Your task to perform on an android device: Do I have any events tomorrow? Image 0: 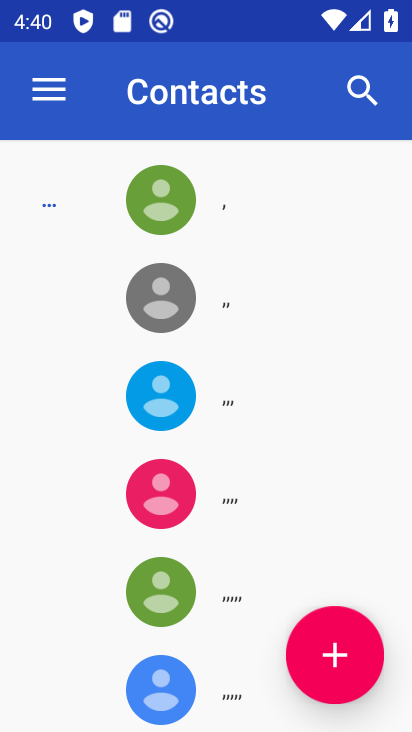
Step 0: press home button
Your task to perform on an android device: Do I have any events tomorrow? Image 1: 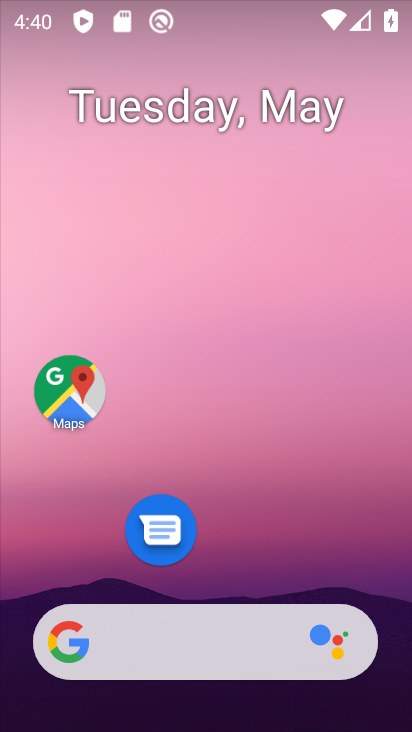
Step 1: drag from (269, 607) to (211, 57)
Your task to perform on an android device: Do I have any events tomorrow? Image 2: 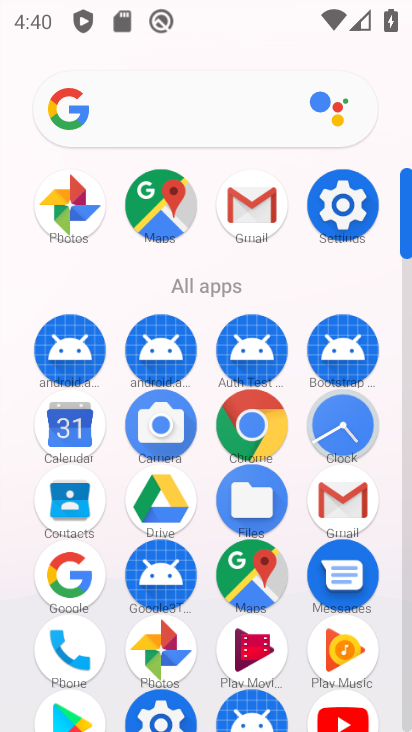
Step 2: click (63, 441)
Your task to perform on an android device: Do I have any events tomorrow? Image 3: 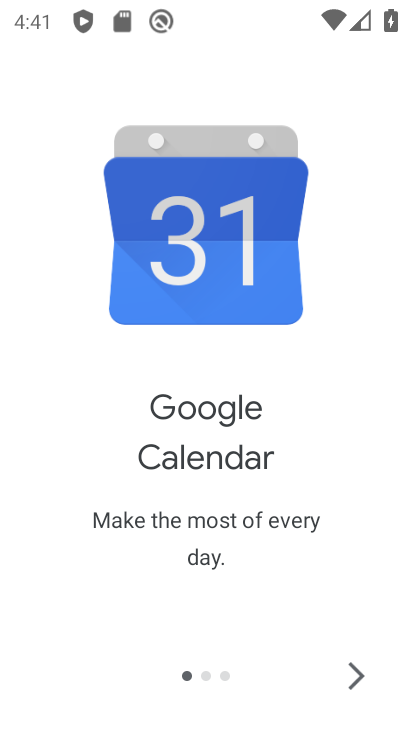
Step 3: click (374, 679)
Your task to perform on an android device: Do I have any events tomorrow? Image 4: 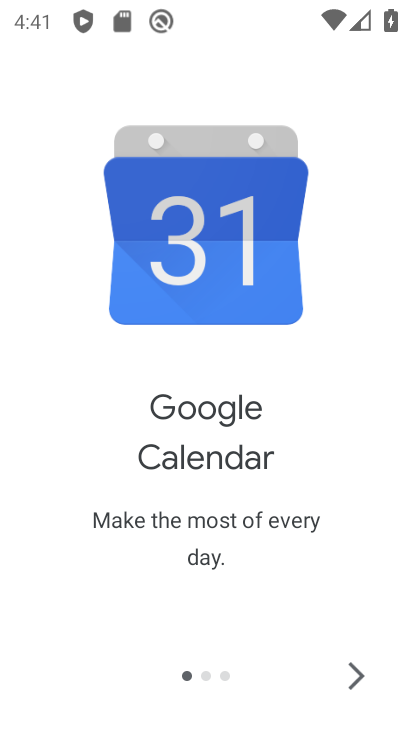
Step 4: click (374, 679)
Your task to perform on an android device: Do I have any events tomorrow? Image 5: 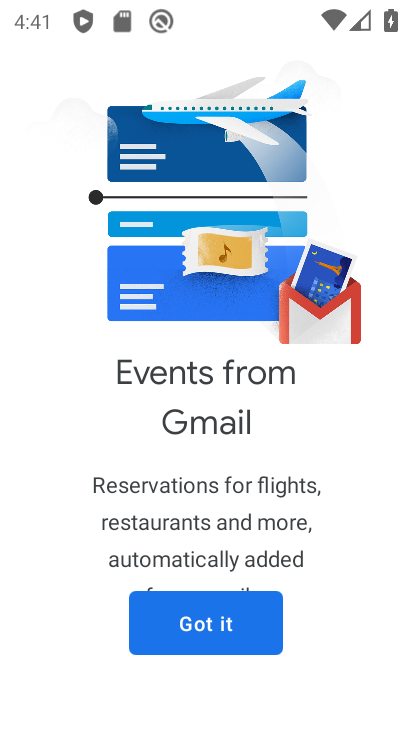
Step 5: click (236, 638)
Your task to perform on an android device: Do I have any events tomorrow? Image 6: 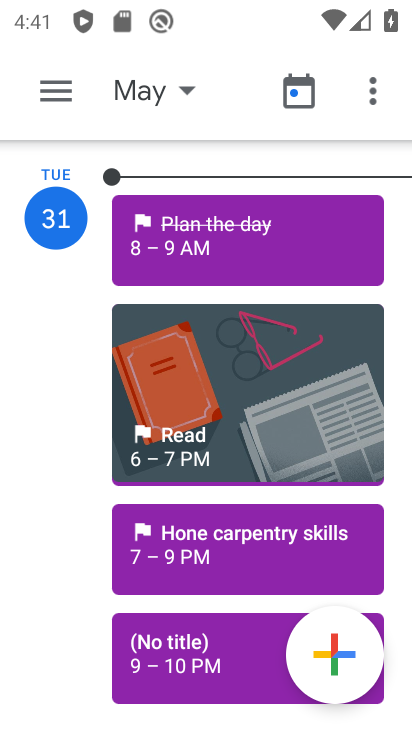
Step 6: click (144, 87)
Your task to perform on an android device: Do I have any events tomorrow? Image 7: 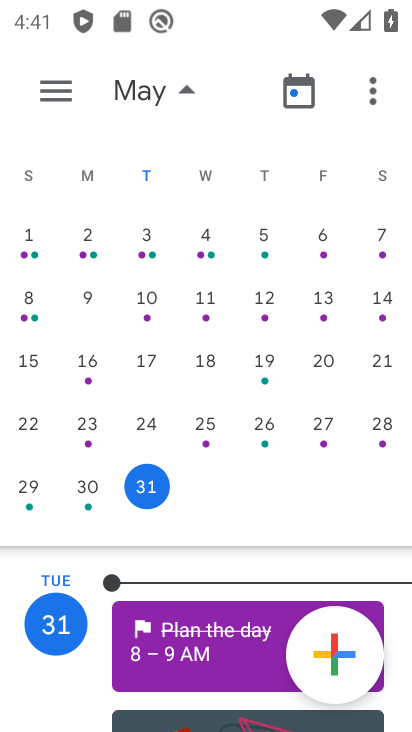
Step 7: drag from (378, 414) to (7, 522)
Your task to perform on an android device: Do I have any events tomorrow? Image 8: 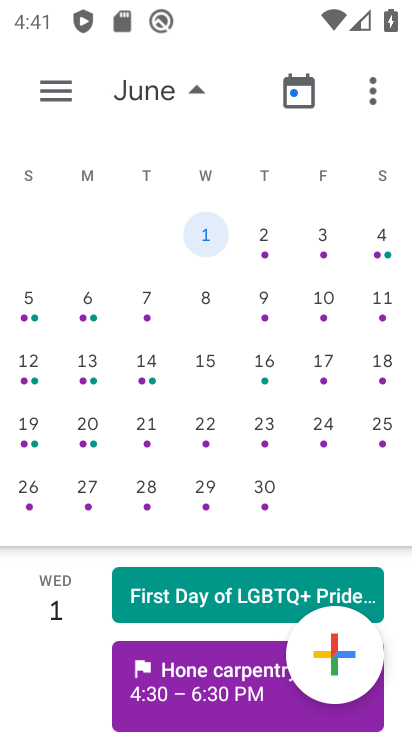
Step 8: click (207, 233)
Your task to perform on an android device: Do I have any events tomorrow? Image 9: 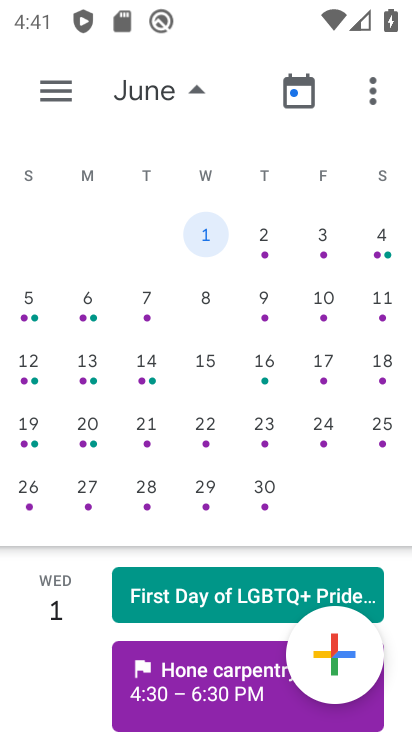
Step 9: task complete